Your task to perform on an android device: clear all cookies in the chrome app Image 0: 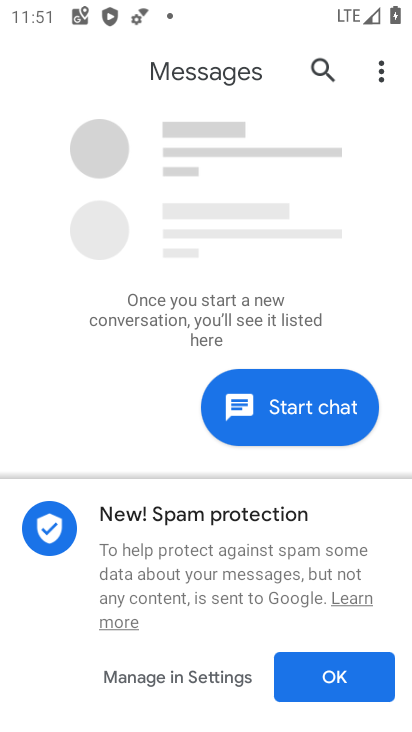
Step 0: press back button
Your task to perform on an android device: clear all cookies in the chrome app Image 1: 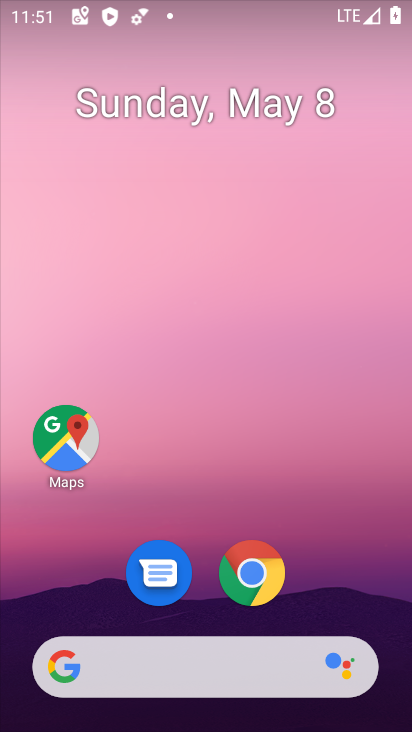
Step 1: drag from (316, 596) to (221, 30)
Your task to perform on an android device: clear all cookies in the chrome app Image 2: 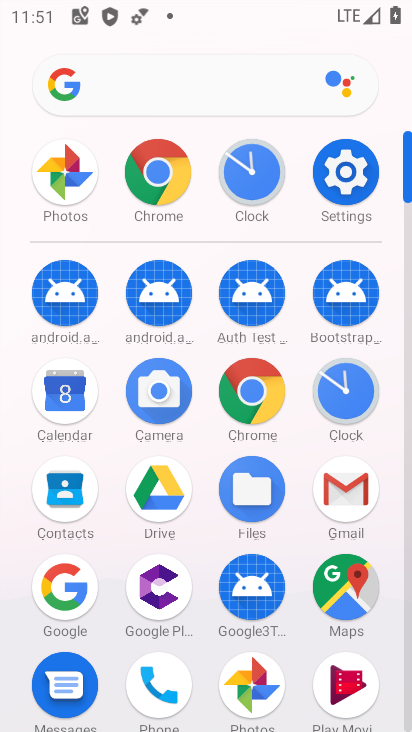
Step 2: drag from (22, 602) to (24, 293)
Your task to perform on an android device: clear all cookies in the chrome app Image 3: 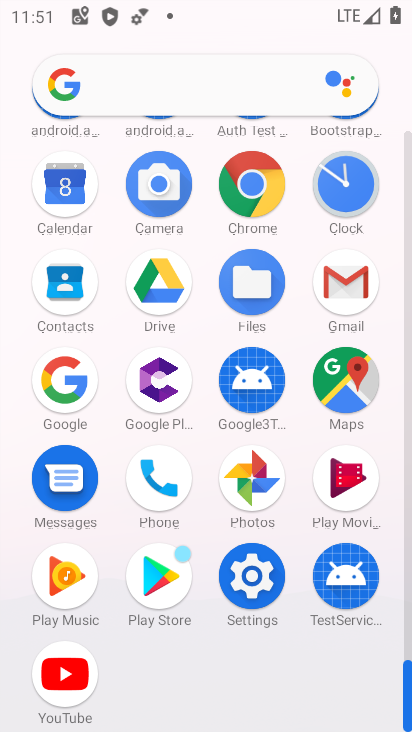
Step 3: drag from (1, 516) to (3, 283)
Your task to perform on an android device: clear all cookies in the chrome app Image 4: 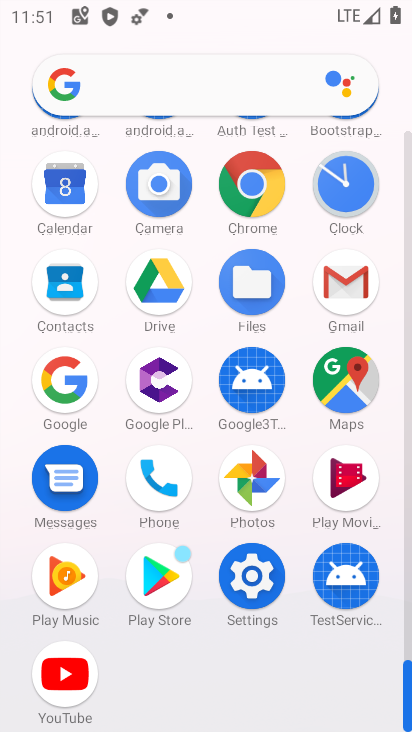
Step 4: click (250, 180)
Your task to perform on an android device: clear all cookies in the chrome app Image 5: 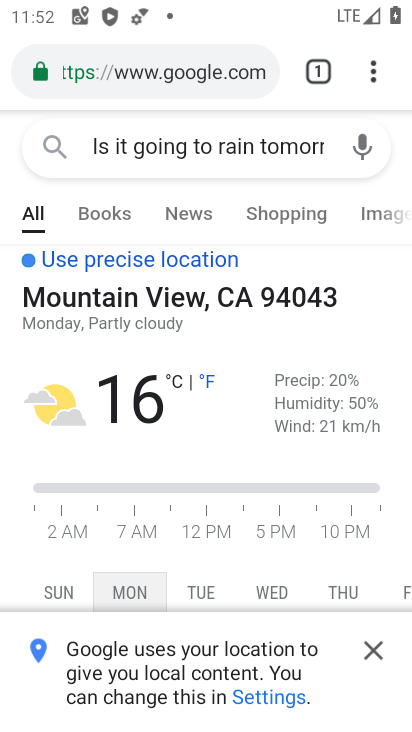
Step 5: drag from (376, 73) to (111, 558)
Your task to perform on an android device: clear all cookies in the chrome app Image 6: 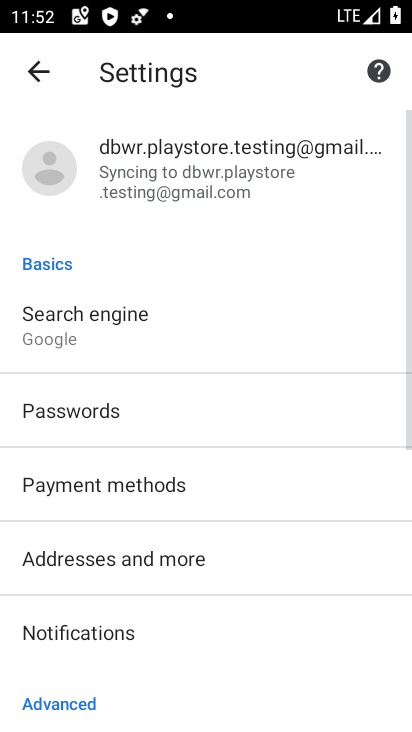
Step 6: drag from (285, 583) to (264, 145)
Your task to perform on an android device: clear all cookies in the chrome app Image 7: 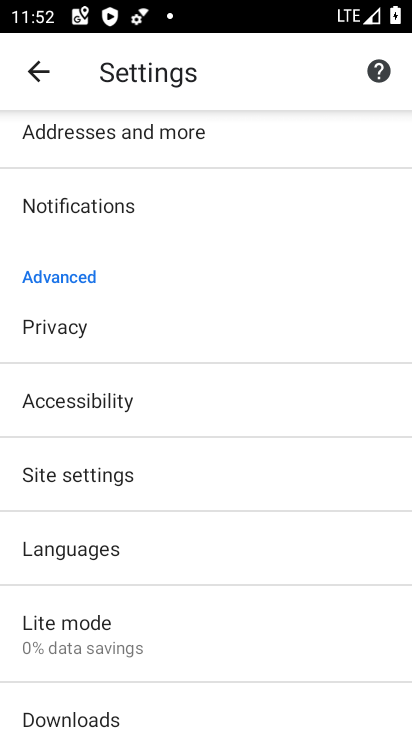
Step 7: drag from (190, 568) to (211, 190)
Your task to perform on an android device: clear all cookies in the chrome app Image 8: 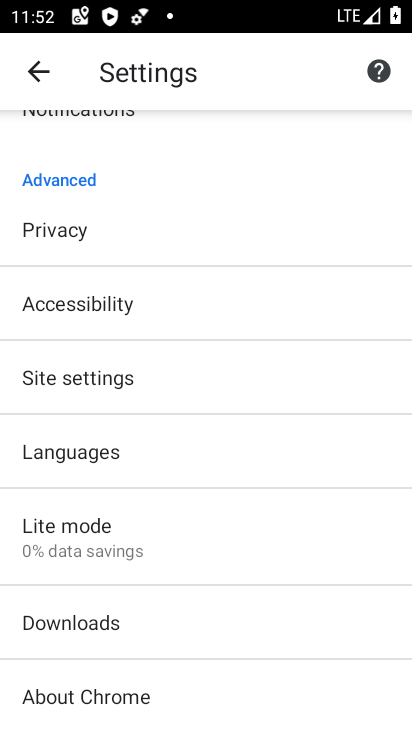
Step 8: drag from (202, 635) to (204, 196)
Your task to perform on an android device: clear all cookies in the chrome app Image 9: 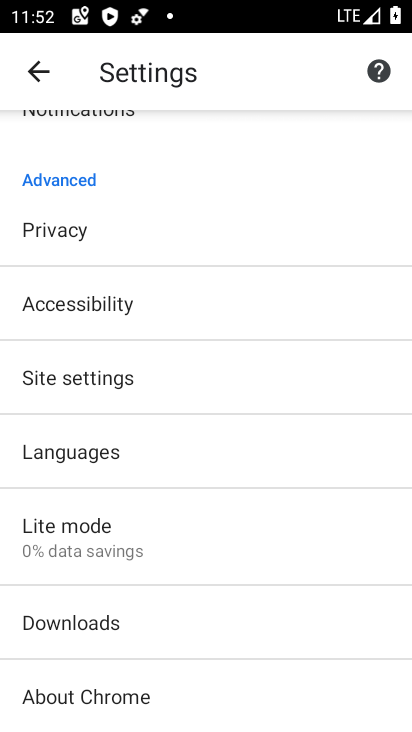
Step 9: click (144, 241)
Your task to perform on an android device: clear all cookies in the chrome app Image 10: 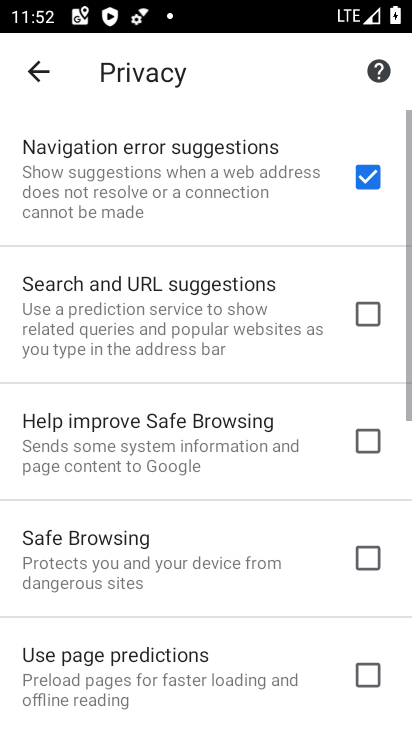
Step 10: drag from (228, 708) to (200, 175)
Your task to perform on an android device: clear all cookies in the chrome app Image 11: 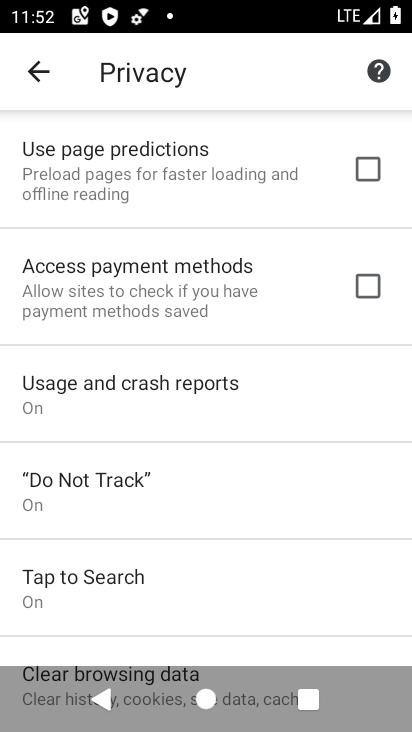
Step 11: drag from (158, 606) to (180, 195)
Your task to perform on an android device: clear all cookies in the chrome app Image 12: 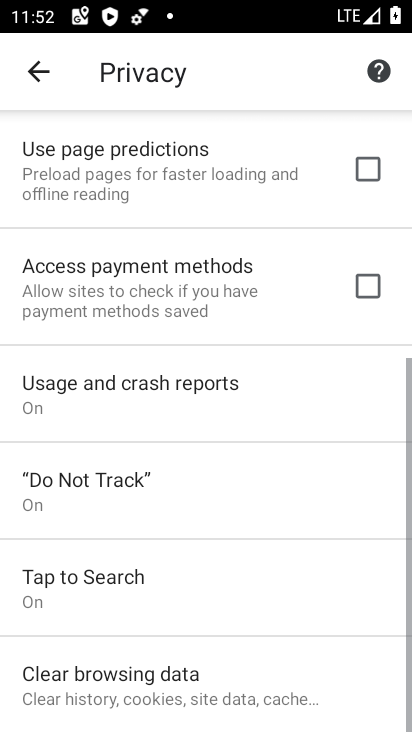
Step 12: click (126, 687)
Your task to perform on an android device: clear all cookies in the chrome app Image 13: 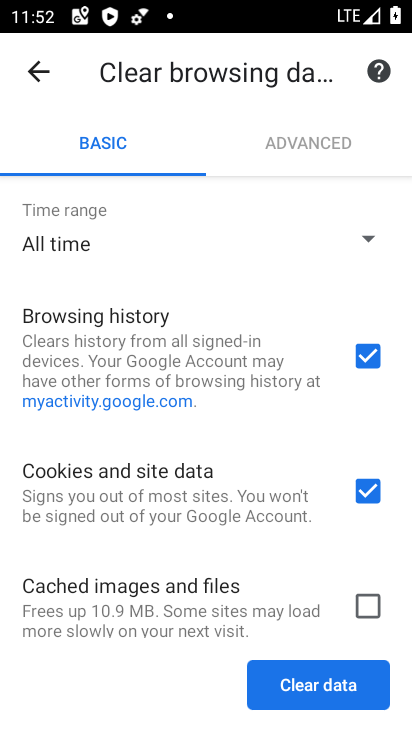
Step 13: click (364, 351)
Your task to perform on an android device: clear all cookies in the chrome app Image 14: 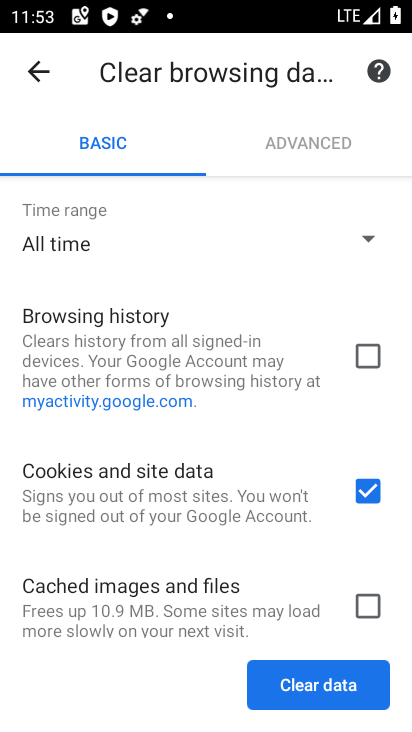
Step 14: click (339, 682)
Your task to perform on an android device: clear all cookies in the chrome app Image 15: 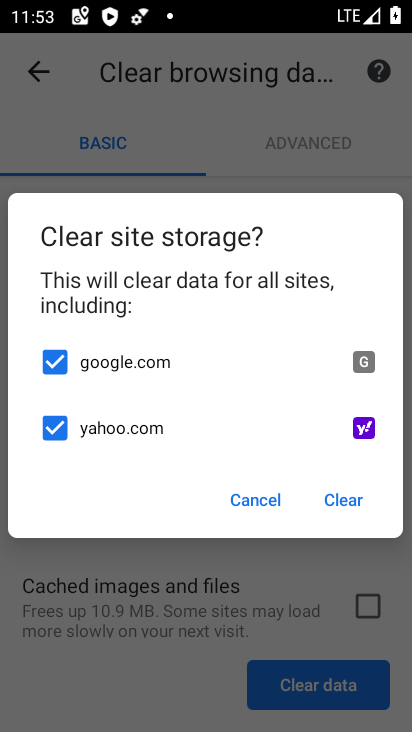
Step 15: click (334, 497)
Your task to perform on an android device: clear all cookies in the chrome app Image 16: 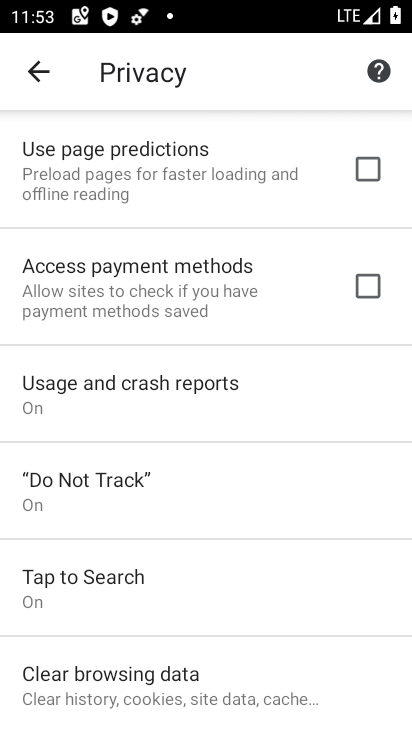
Step 16: task complete